Your task to perform on an android device: toggle sleep mode Image 0: 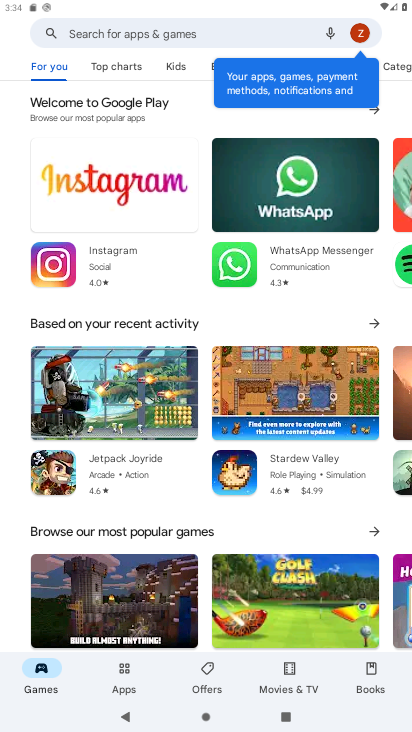
Step 0: press home button
Your task to perform on an android device: toggle sleep mode Image 1: 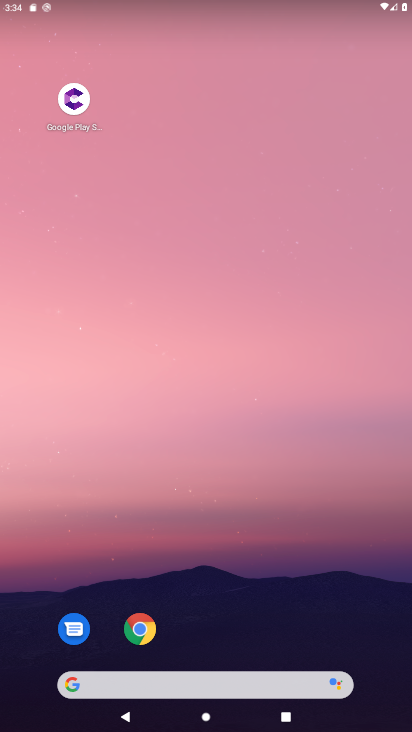
Step 1: drag from (246, 657) to (270, 238)
Your task to perform on an android device: toggle sleep mode Image 2: 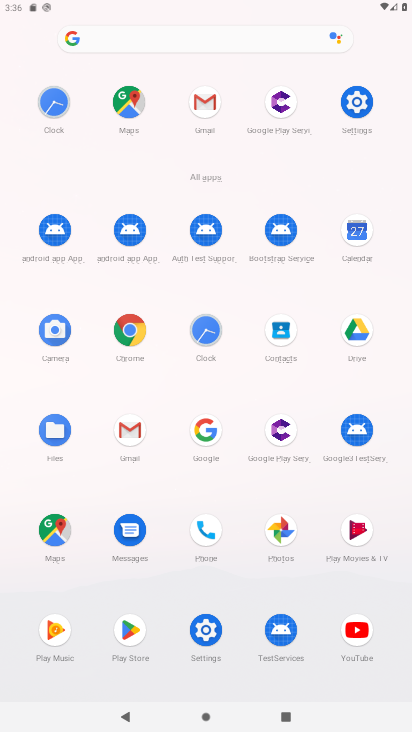
Step 2: click (194, 628)
Your task to perform on an android device: toggle sleep mode Image 3: 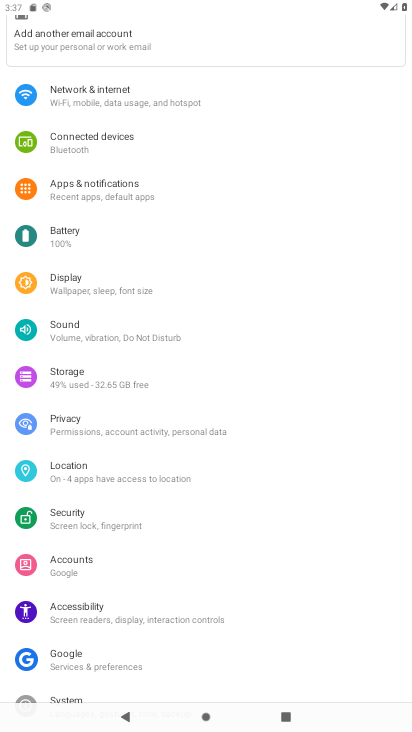
Step 3: click (31, 282)
Your task to perform on an android device: toggle sleep mode Image 4: 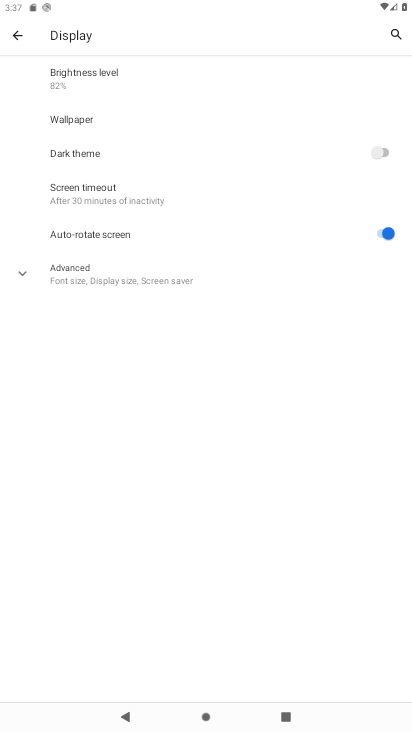
Step 4: task complete